Your task to perform on an android device: change your default location settings in chrome Image 0: 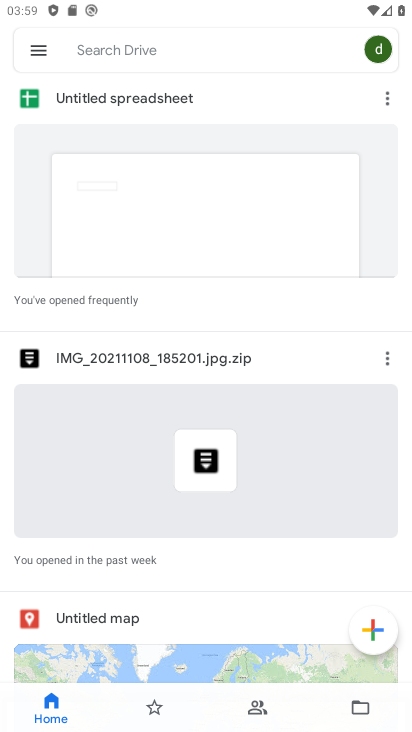
Step 0: press home button
Your task to perform on an android device: change your default location settings in chrome Image 1: 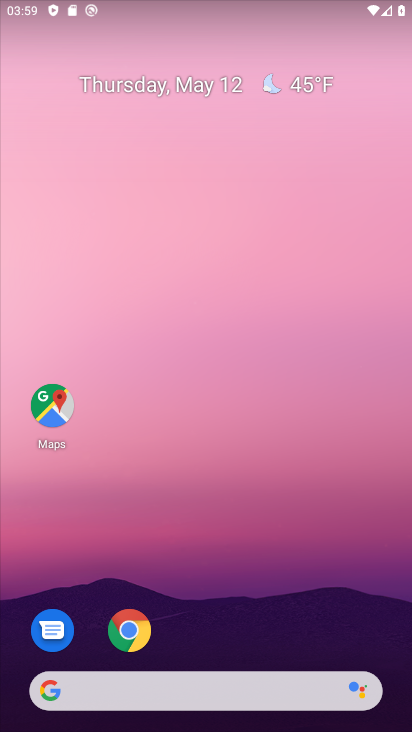
Step 1: drag from (186, 611) to (296, 75)
Your task to perform on an android device: change your default location settings in chrome Image 2: 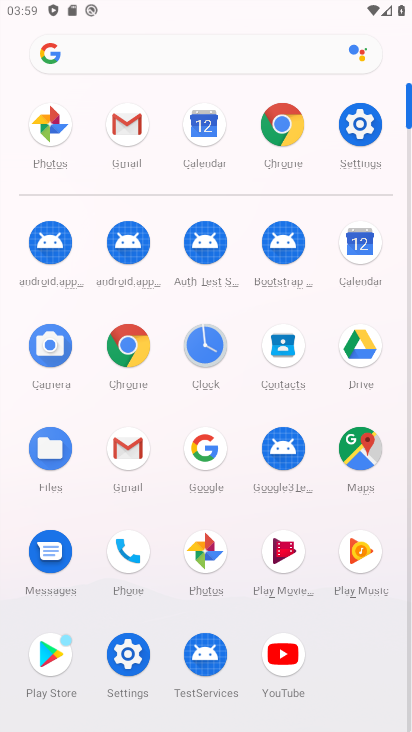
Step 2: click (291, 116)
Your task to perform on an android device: change your default location settings in chrome Image 3: 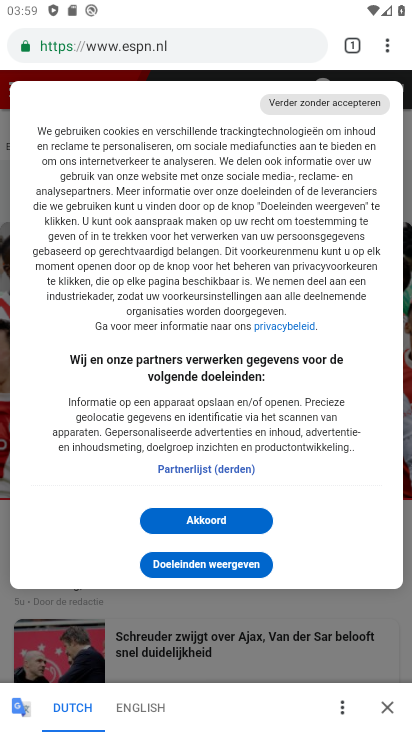
Step 3: click (392, 34)
Your task to perform on an android device: change your default location settings in chrome Image 4: 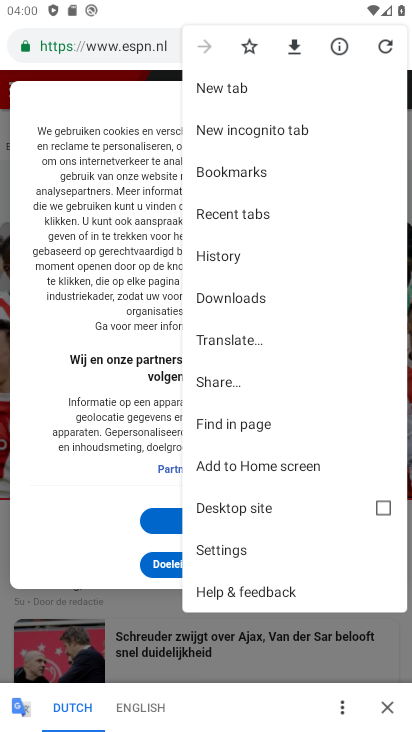
Step 4: click (218, 541)
Your task to perform on an android device: change your default location settings in chrome Image 5: 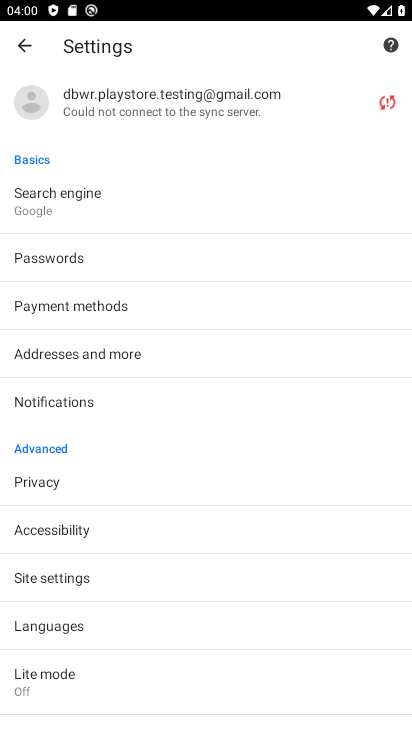
Step 5: drag from (78, 570) to (117, 365)
Your task to perform on an android device: change your default location settings in chrome Image 6: 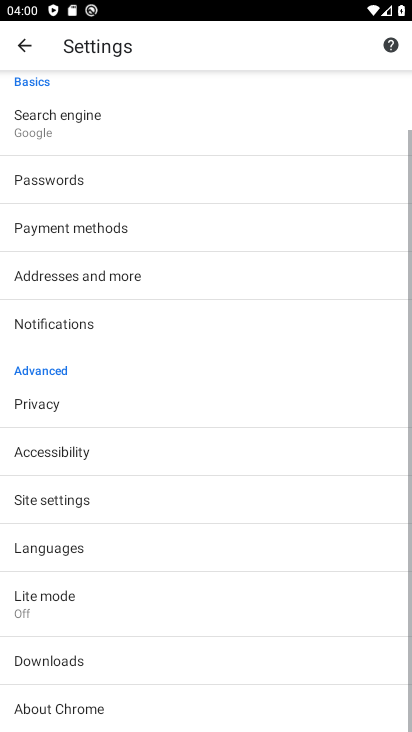
Step 6: click (71, 501)
Your task to perform on an android device: change your default location settings in chrome Image 7: 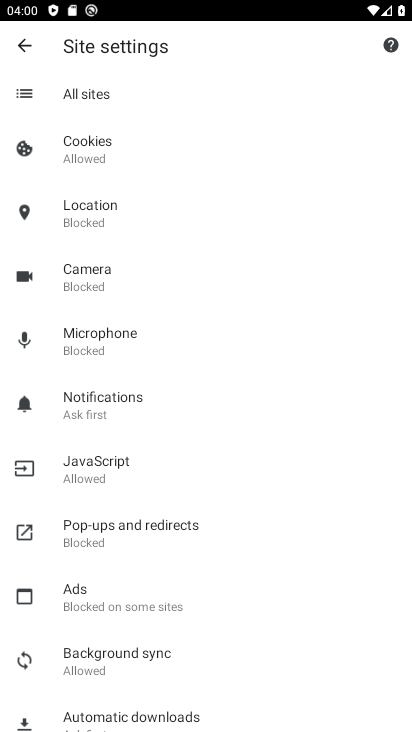
Step 7: click (113, 202)
Your task to perform on an android device: change your default location settings in chrome Image 8: 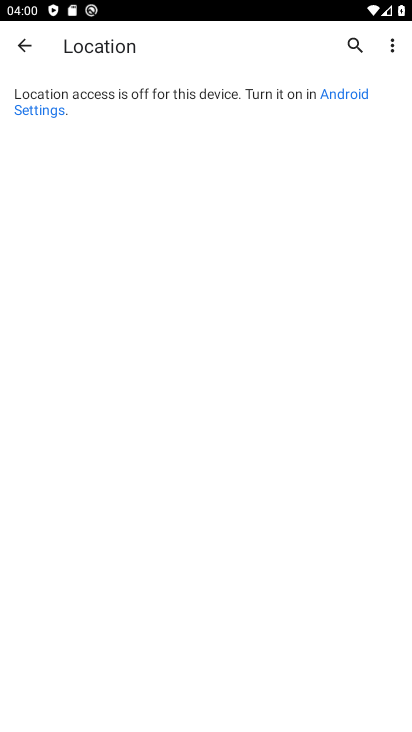
Step 8: click (358, 94)
Your task to perform on an android device: change your default location settings in chrome Image 9: 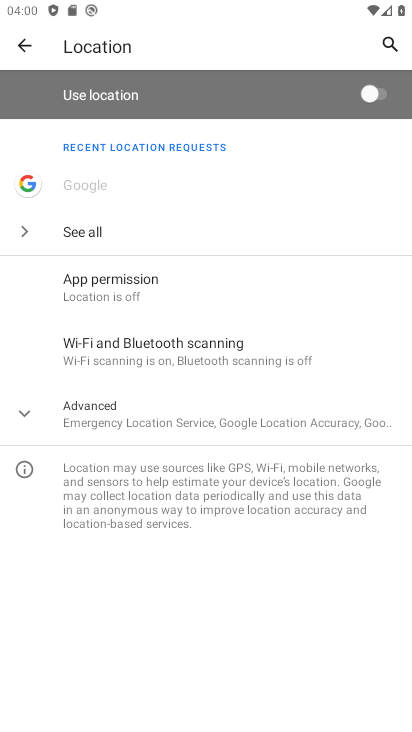
Step 9: click (374, 91)
Your task to perform on an android device: change your default location settings in chrome Image 10: 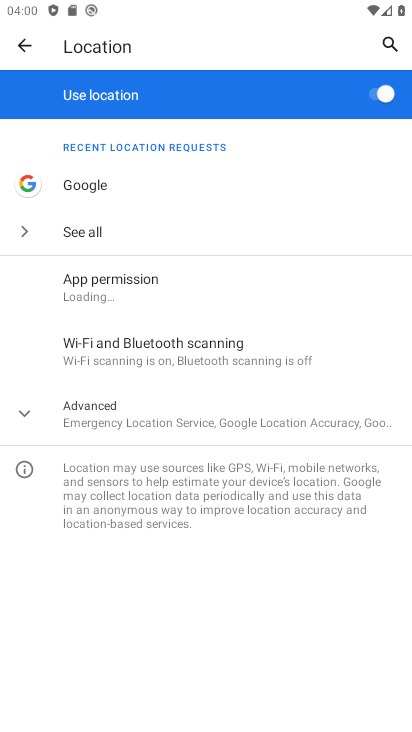
Step 10: task complete